Your task to perform on an android device: Open Youtube and go to the subscriptions tab Image 0: 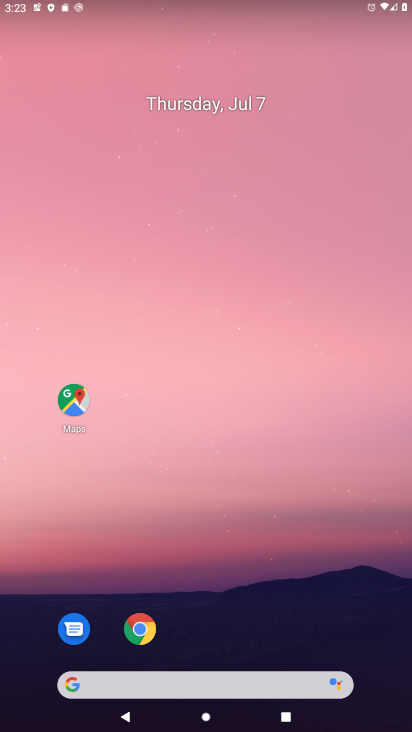
Step 0: drag from (227, 632) to (232, 123)
Your task to perform on an android device: Open Youtube and go to the subscriptions tab Image 1: 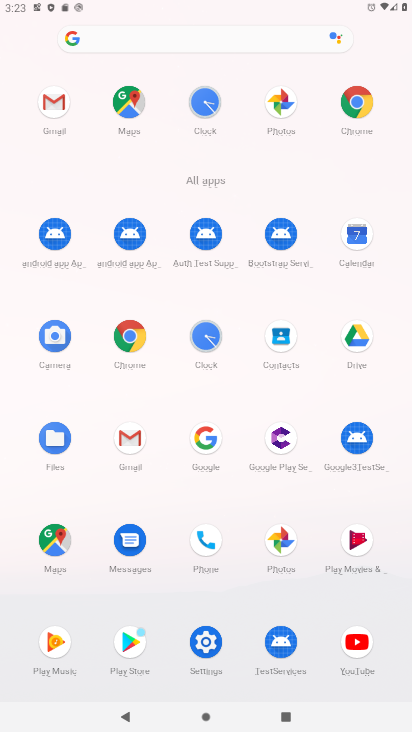
Step 1: click (368, 630)
Your task to perform on an android device: Open Youtube and go to the subscriptions tab Image 2: 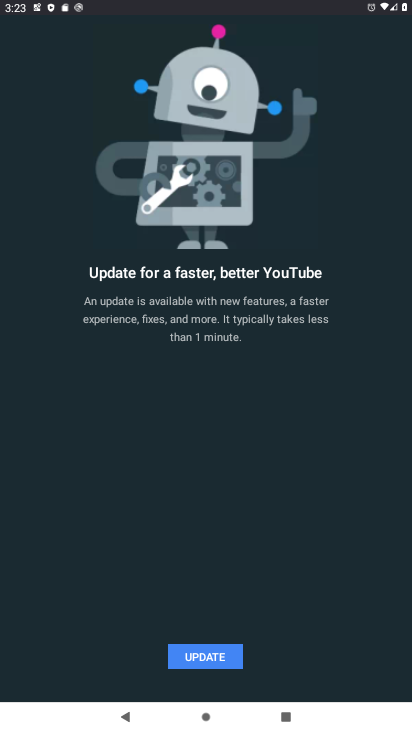
Step 2: click (209, 662)
Your task to perform on an android device: Open Youtube and go to the subscriptions tab Image 3: 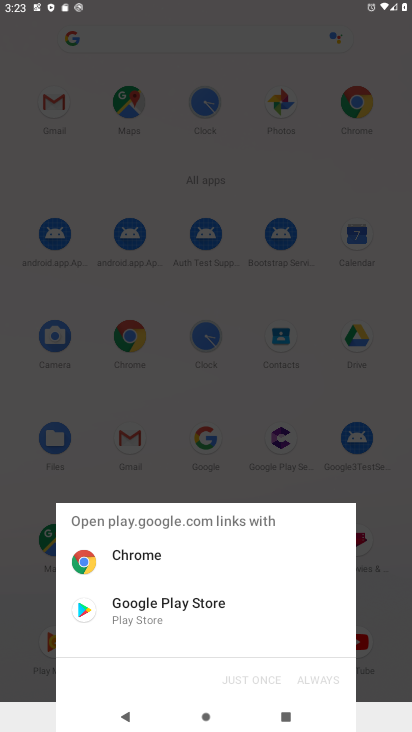
Step 3: click (141, 621)
Your task to perform on an android device: Open Youtube and go to the subscriptions tab Image 4: 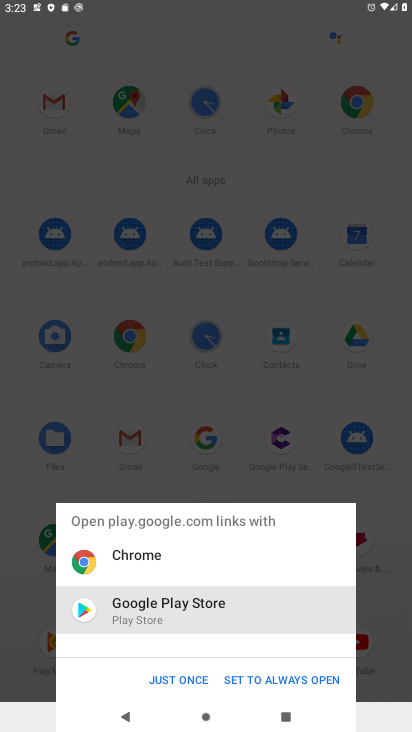
Step 4: click (182, 682)
Your task to perform on an android device: Open Youtube and go to the subscriptions tab Image 5: 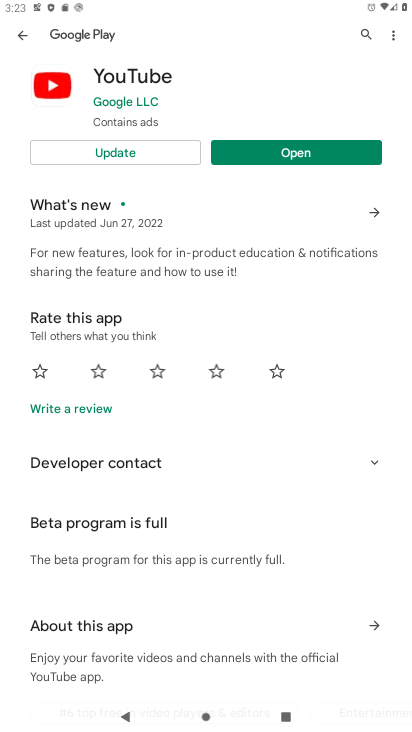
Step 5: click (105, 157)
Your task to perform on an android device: Open Youtube and go to the subscriptions tab Image 6: 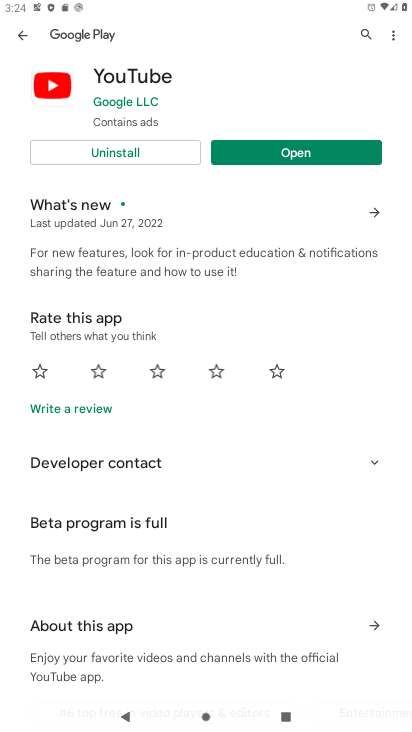
Step 6: click (314, 159)
Your task to perform on an android device: Open Youtube and go to the subscriptions tab Image 7: 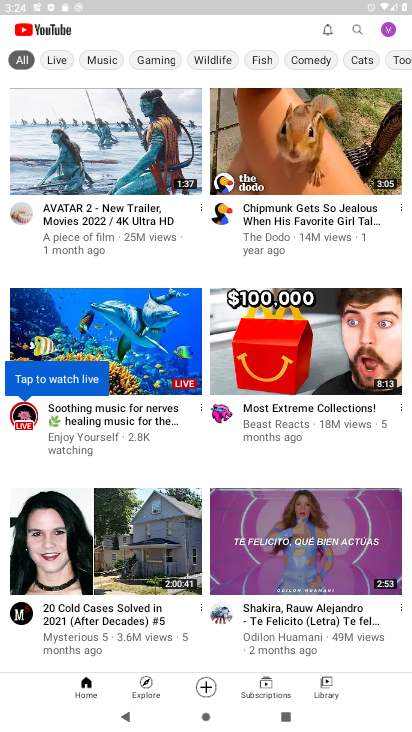
Step 7: click (228, 691)
Your task to perform on an android device: Open Youtube and go to the subscriptions tab Image 8: 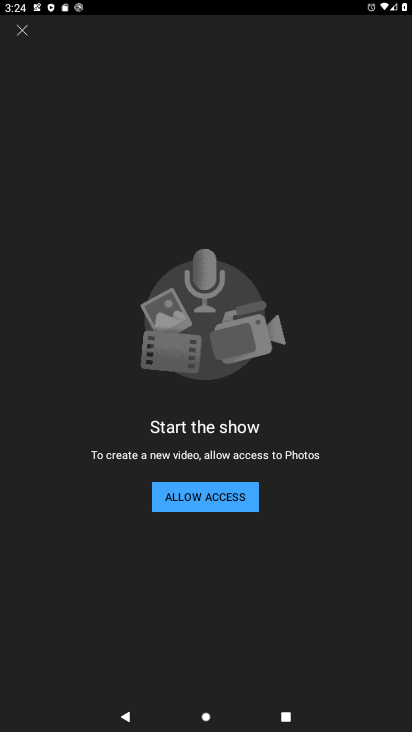
Step 8: click (210, 503)
Your task to perform on an android device: Open Youtube and go to the subscriptions tab Image 9: 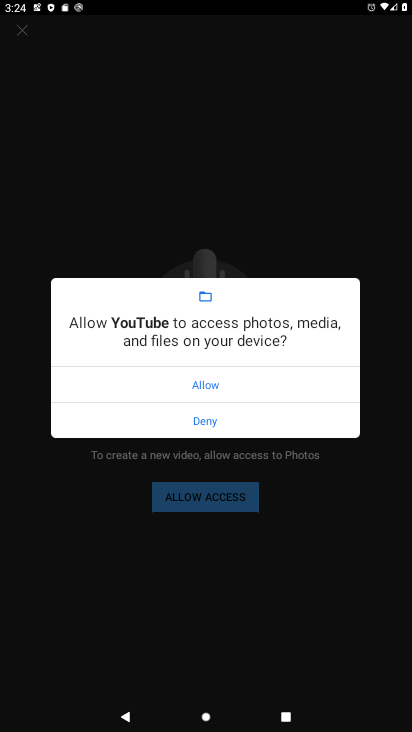
Step 9: click (267, 387)
Your task to perform on an android device: Open Youtube and go to the subscriptions tab Image 10: 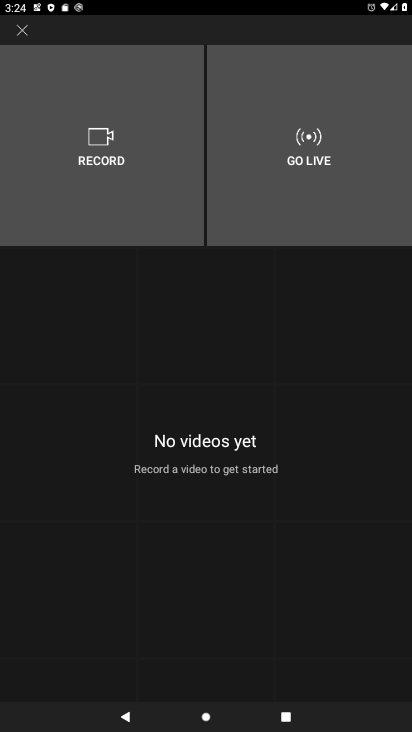
Step 10: click (19, 26)
Your task to perform on an android device: Open Youtube and go to the subscriptions tab Image 11: 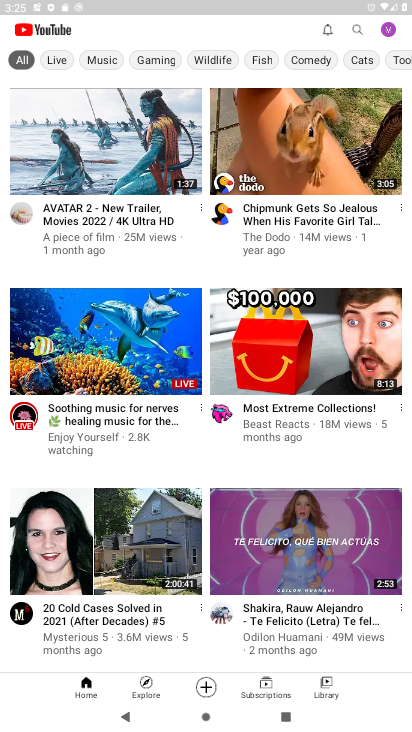
Step 11: click (258, 678)
Your task to perform on an android device: Open Youtube and go to the subscriptions tab Image 12: 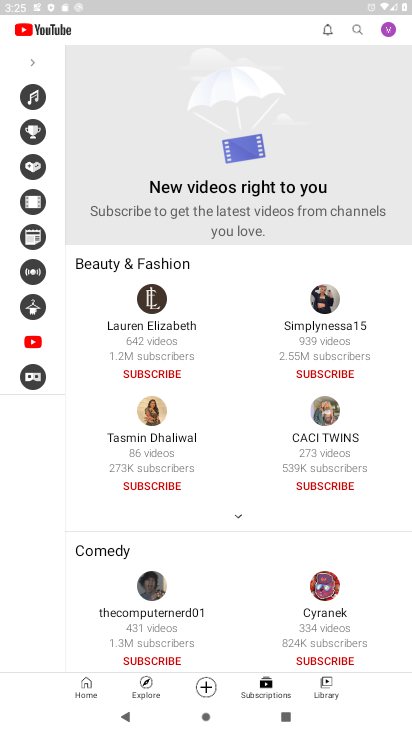
Step 12: task complete